Your task to perform on an android device: toggle sleep mode Image 0: 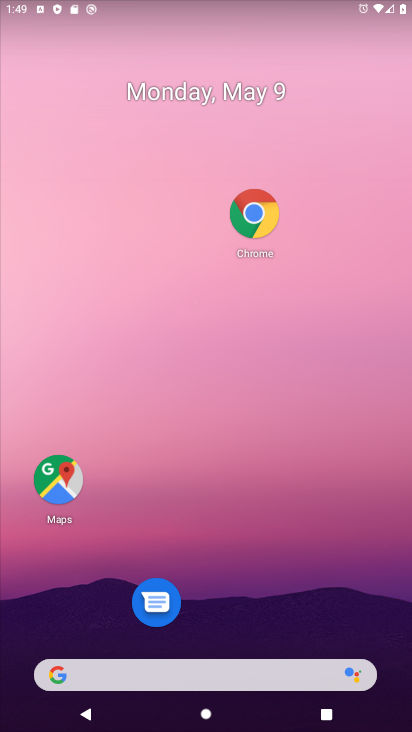
Step 0: drag from (263, 581) to (204, 14)
Your task to perform on an android device: toggle sleep mode Image 1: 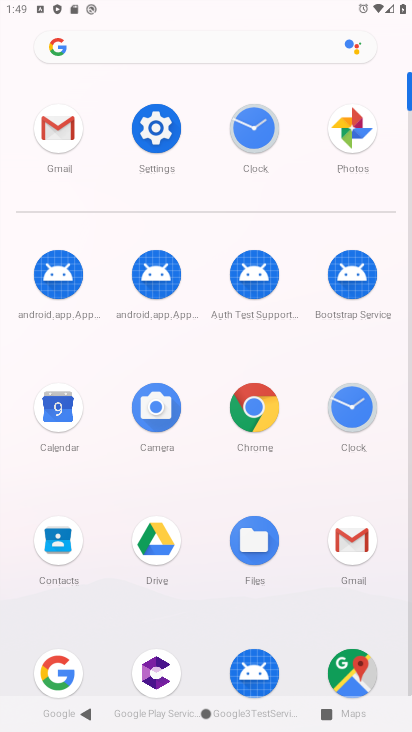
Step 1: click (166, 127)
Your task to perform on an android device: toggle sleep mode Image 2: 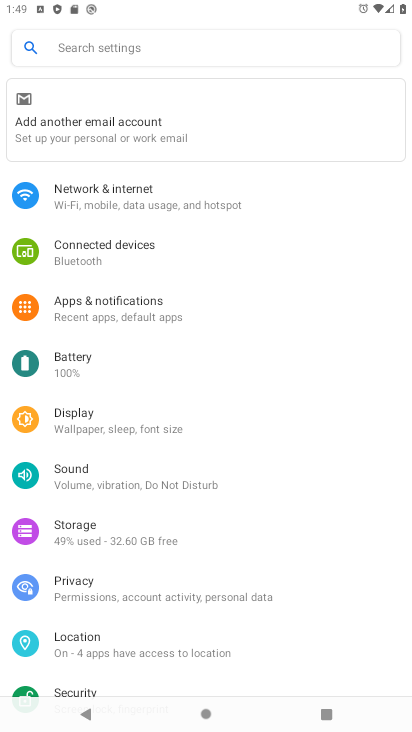
Step 2: click (214, 423)
Your task to perform on an android device: toggle sleep mode Image 3: 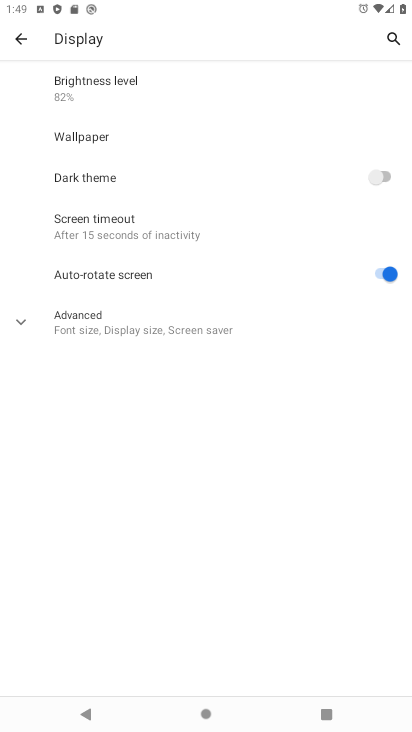
Step 3: click (124, 238)
Your task to perform on an android device: toggle sleep mode Image 4: 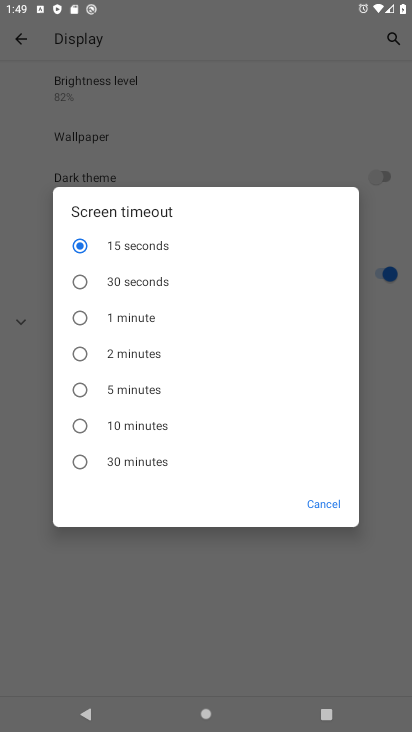
Step 4: click (124, 245)
Your task to perform on an android device: toggle sleep mode Image 5: 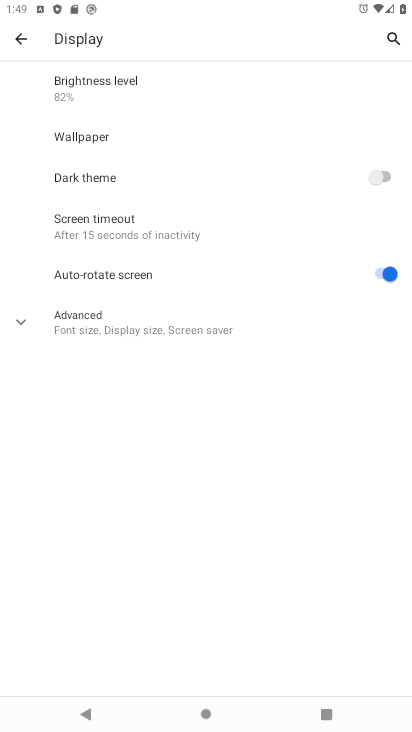
Step 5: task complete